Your task to perform on an android device: Do I have any events today? Image 0: 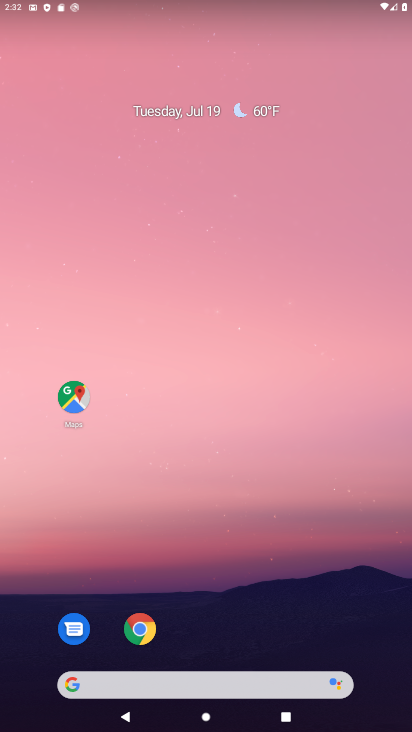
Step 0: drag from (208, 535) to (237, 43)
Your task to perform on an android device: Do I have any events today? Image 1: 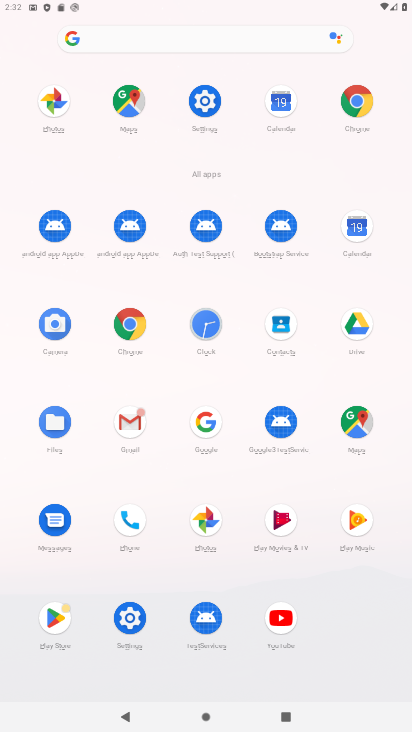
Step 1: click (352, 231)
Your task to perform on an android device: Do I have any events today? Image 2: 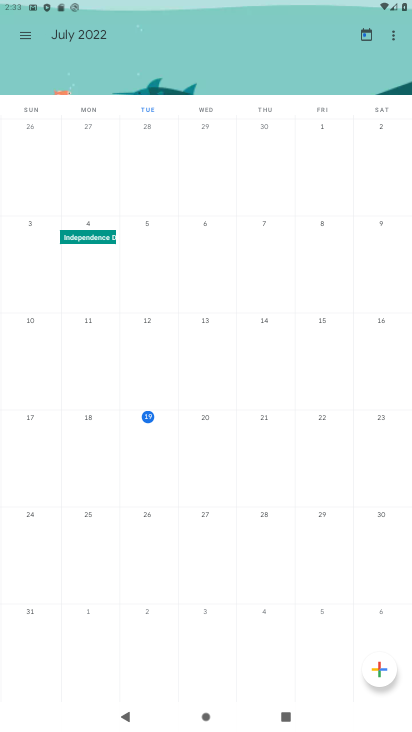
Step 2: task complete